Your task to perform on an android device: turn off location history Image 0: 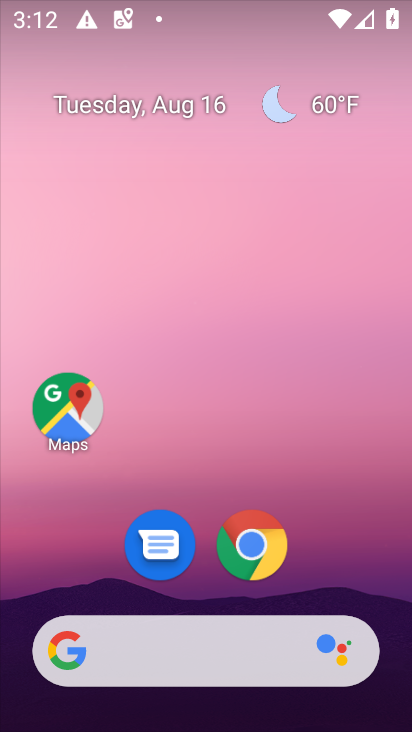
Step 0: drag from (159, 640) to (175, 221)
Your task to perform on an android device: turn off location history Image 1: 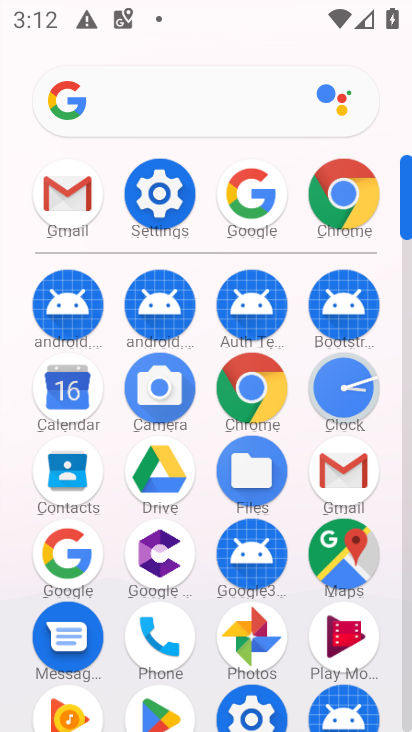
Step 1: click (151, 188)
Your task to perform on an android device: turn off location history Image 2: 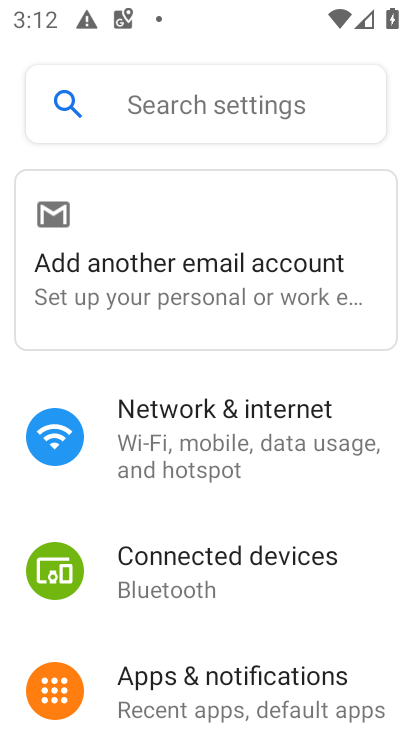
Step 2: drag from (203, 703) to (181, 376)
Your task to perform on an android device: turn off location history Image 3: 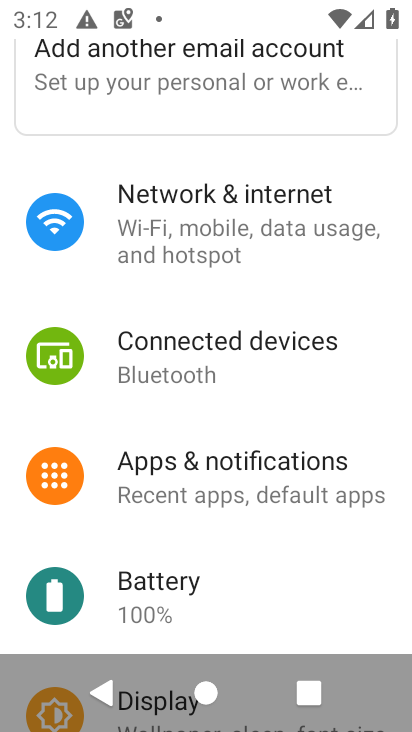
Step 3: drag from (195, 604) to (192, 277)
Your task to perform on an android device: turn off location history Image 4: 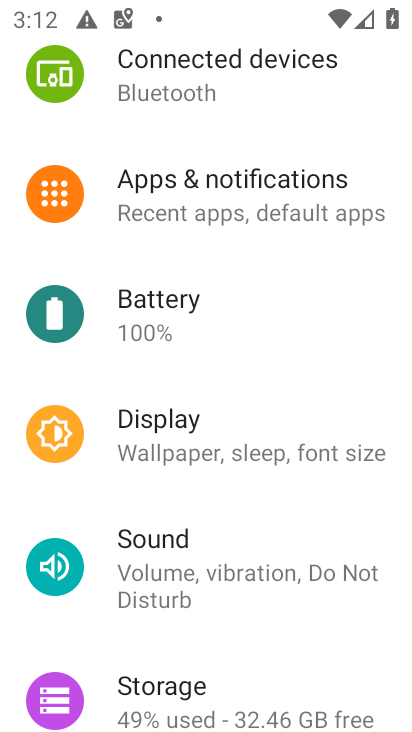
Step 4: drag from (170, 706) to (163, 416)
Your task to perform on an android device: turn off location history Image 5: 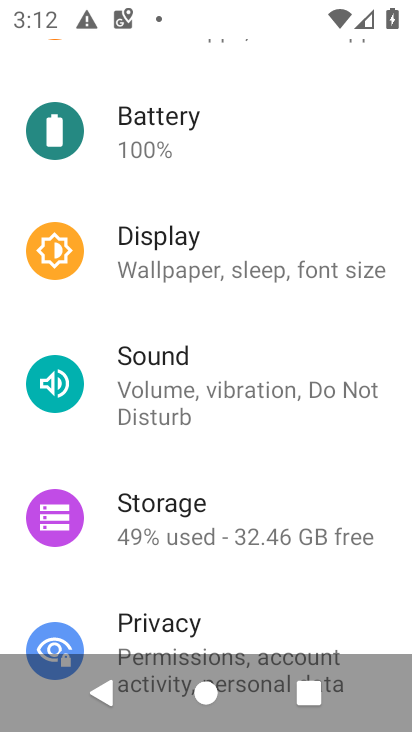
Step 5: drag from (163, 616) to (163, 318)
Your task to perform on an android device: turn off location history Image 6: 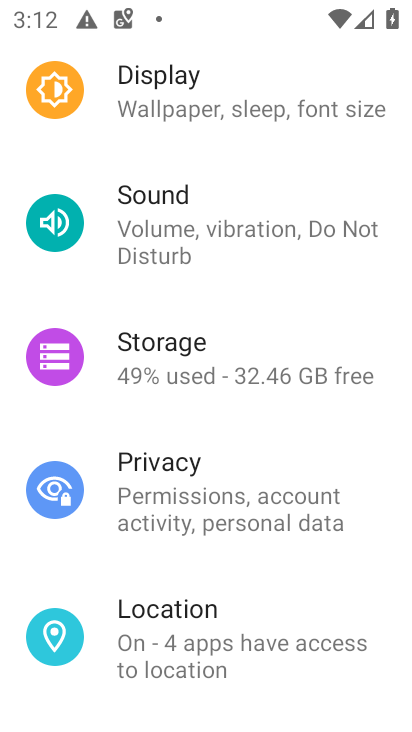
Step 6: click (131, 640)
Your task to perform on an android device: turn off location history Image 7: 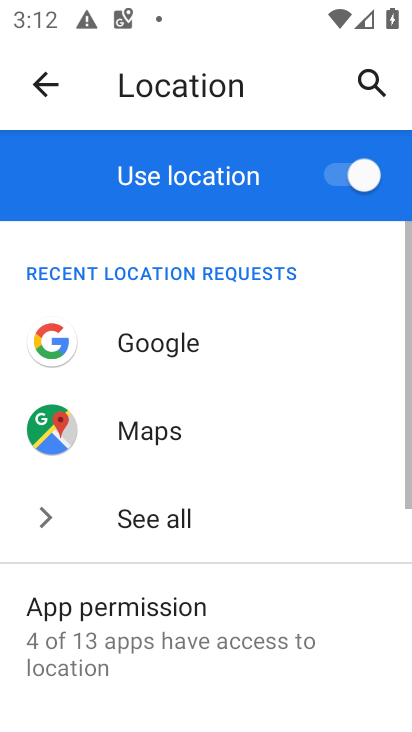
Step 7: drag from (191, 568) to (188, 337)
Your task to perform on an android device: turn off location history Image 8: 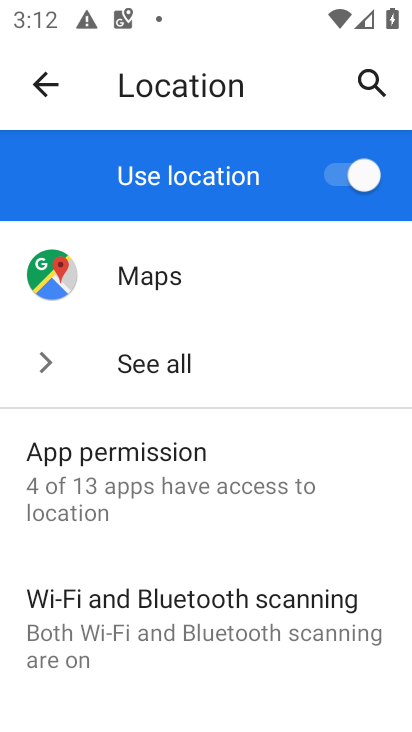
Step 8: drag from (117, 673) to (101, 340)
Your task to perform on an android device: turn off location history Image 9: 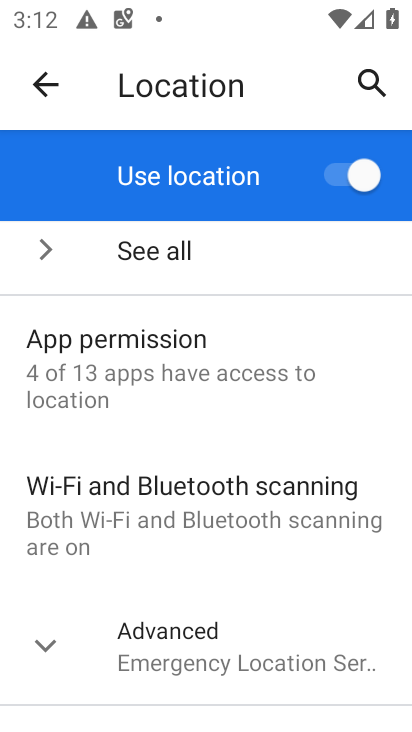
Step 9: click (162, 659)
Your task to perform on an android device: turn off location history Image 10: 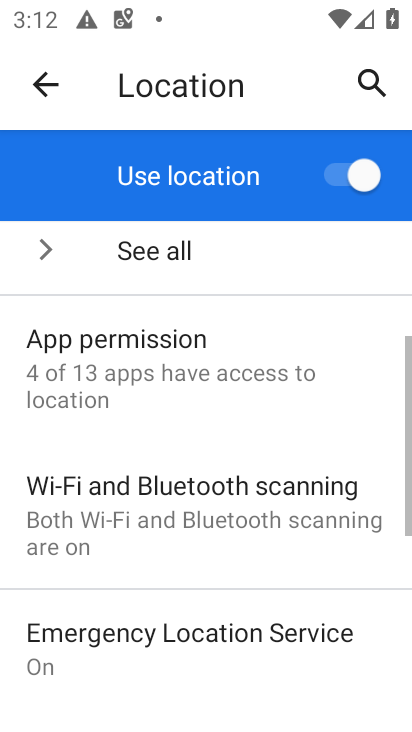
Step 10: drag from (241, 671) to (241, 332)
Your task to perform on an android device: turn off location history Image 11: 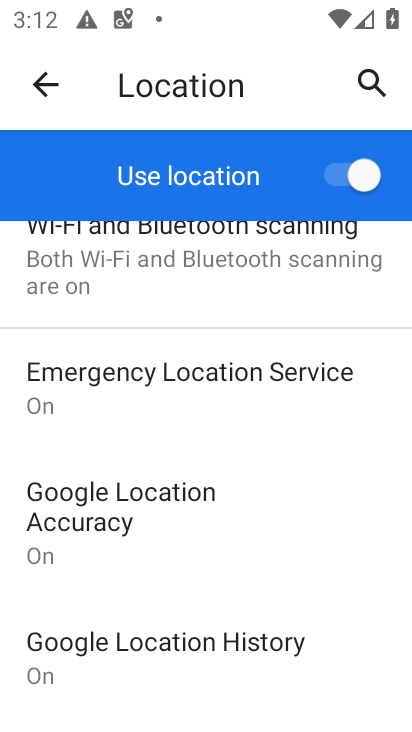
Step 11: drag from (171, 690) to (171, 407)
Your task to perform on an android device: turn off location history Image 12: 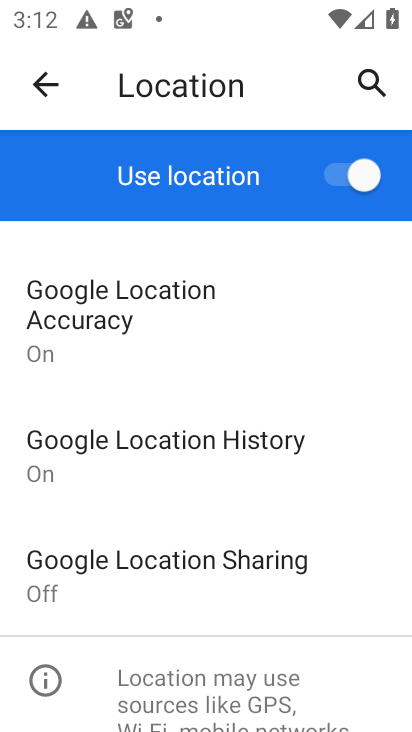
Step 12: click (144, 459)
Your task to perform on an android device: turn off location history Image 13: 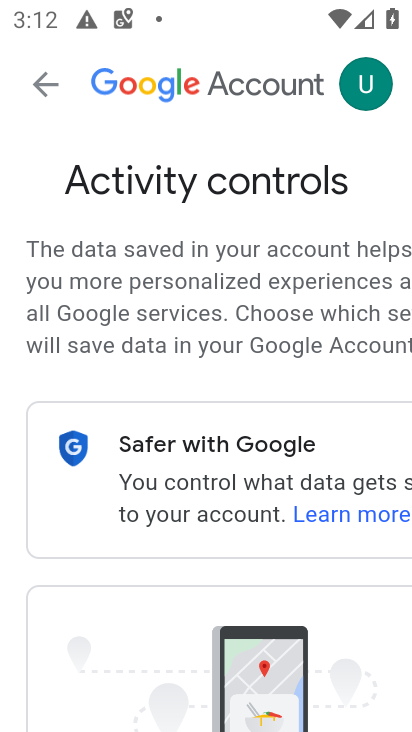
Step 13: drag from (241, 642) to (226, 379)
Your task to perform on an android device: turn off location history Image 14: 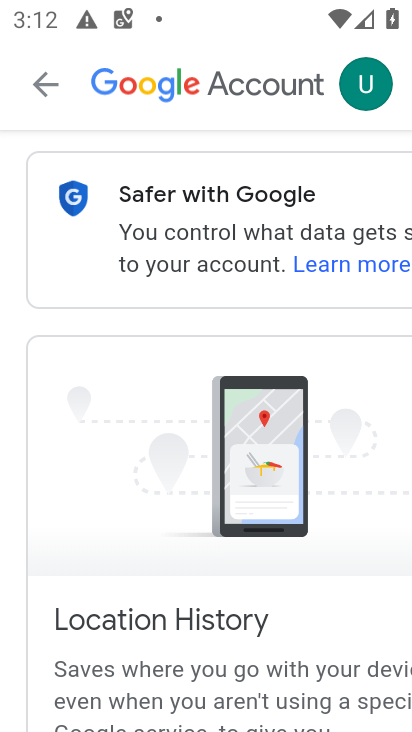
Step 14: drag from (205, 667) to (205, 423)
Your task to perform on an android device: turn off location history Image 15: 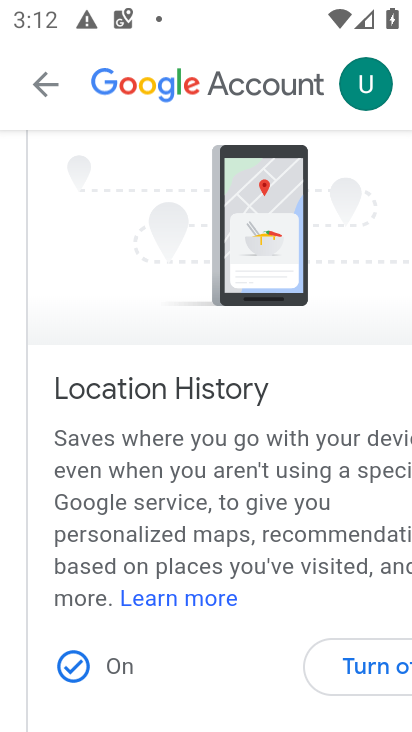
Step 15: click (378, 675)
Your task to perform on an android device: turn off location history Image 16: 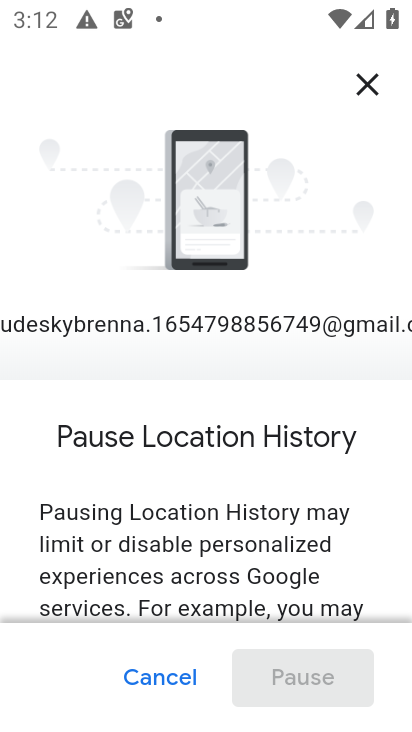
Step 16: drag from (274, 554) to (265, 342)
Your task to perform on an android device: turn off location history Image 17: 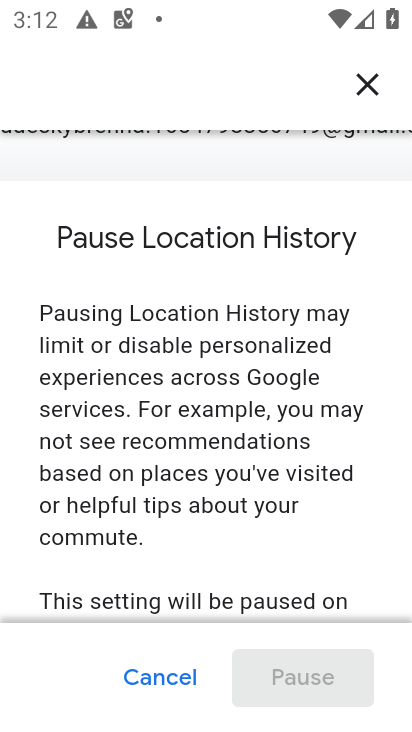
Step 17: drag from (239, 538) to (227, 272)
Your task to perform on an android device: turn off location history Image 18: 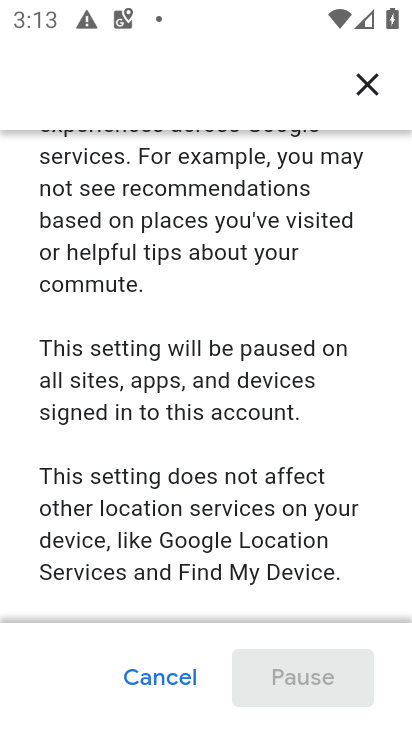
Step 18: drag from (246, 603) to (242, 364)
Your task to perform on an android device: turn off location history Image 19: 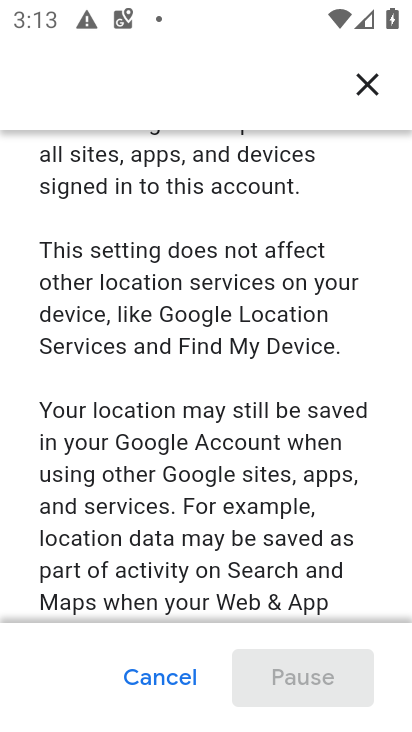
Step 19: drag from (281, 525) to (281, 396)
Your task to perform on an android device: turn off location history Image 20: 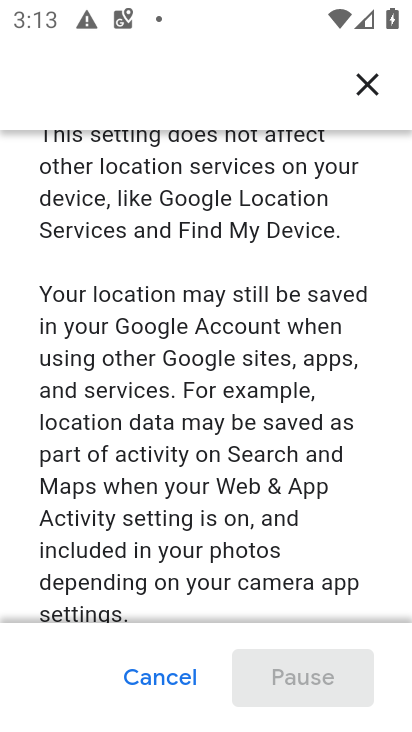
Step 20: drag from (210, 591) to (210, 306)
Your task to perform on an android device: turn off location history Image 21: 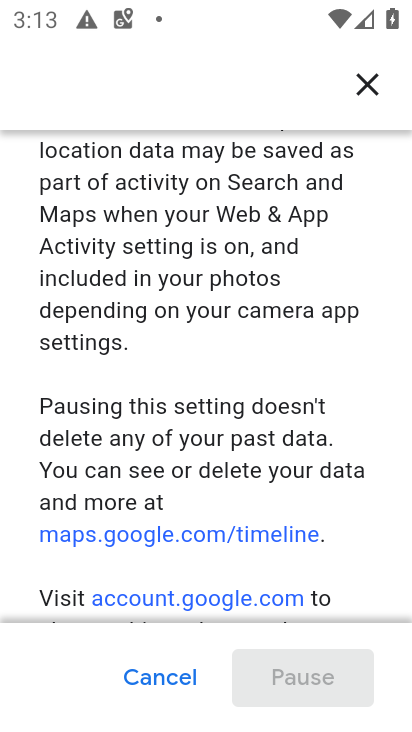
Step 21: drag from (230, 595) to (230, 299)
Your task to perform on an android device: turn off location history Image 22: 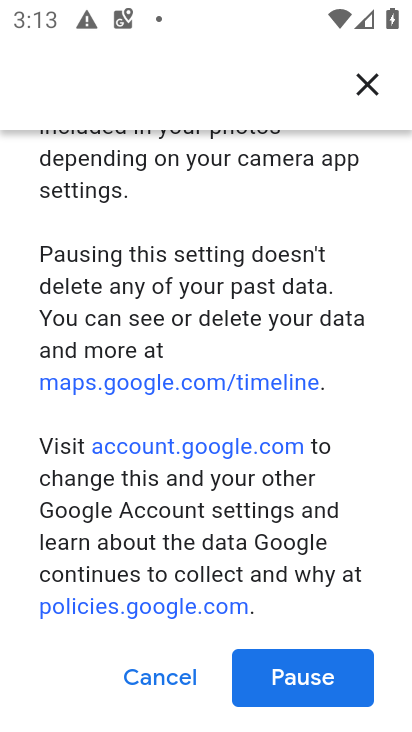
Step 22: click (297, 678)
Your task to perform on an android device: turn off location history Image 23: 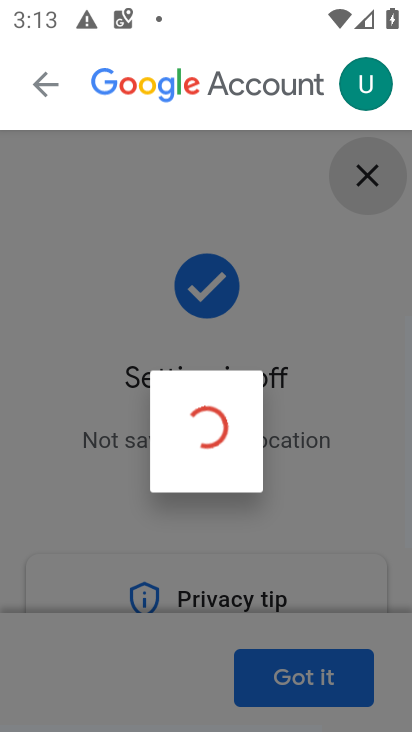
Step 23: click (319, 681)
Your task to perform on an android device: turn off location history Image 24: 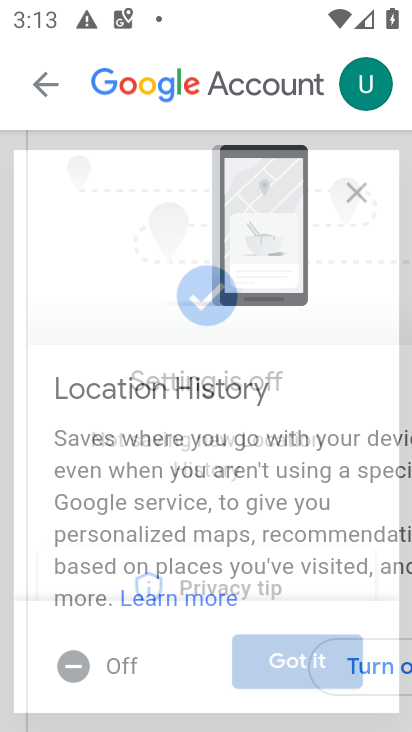
Step 24: click (319, 681)
Your task to perform on an android device: turn off location history Image 25: 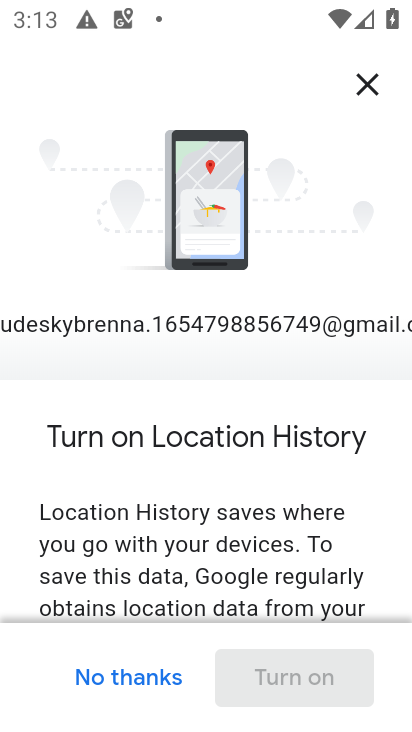
Step 25: task complete